Your task to perform on an android device: visit the assistant section in the google photos Image 0: 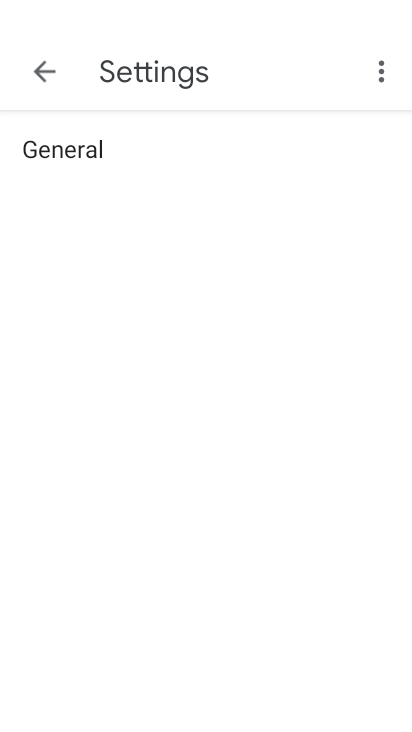
Step 0: press home button
Your task to perform on an android device: visit the assistant section in the google photos Image 1: 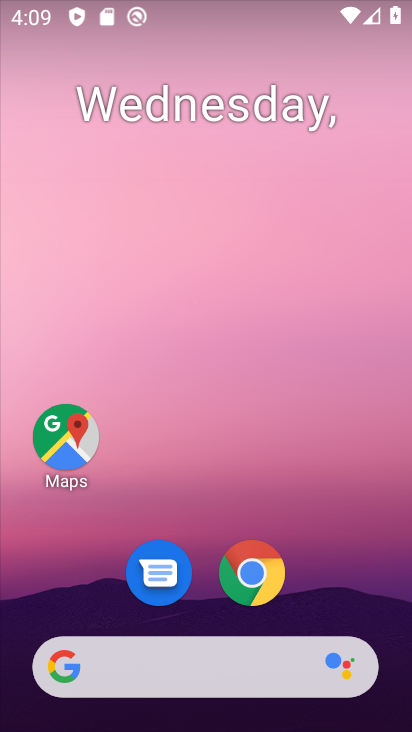
Step 1: drag from (201, 604) to (203, 0)
Your task to perform on an android device: visit the assistant section in the google photos Image 2: 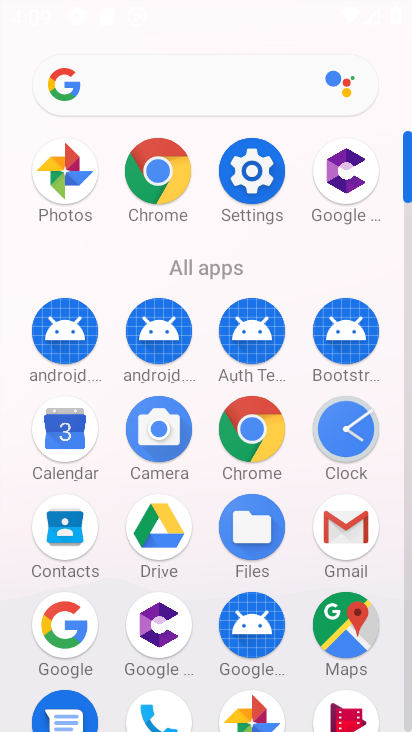
Step 2: drag from (197, 632) to (183, 385)
Your task to perform on an android device: visit the assistant section in the google photos Image 3: 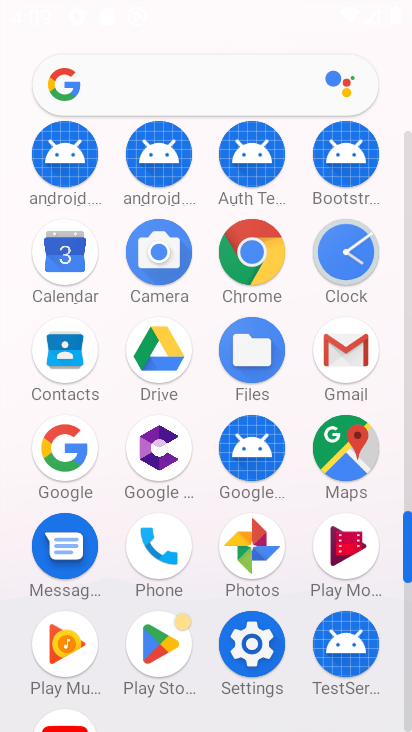
Step 3: click (255, 543)
Your task to perform on an android device: visit the assistant section in the google photos Image 4: 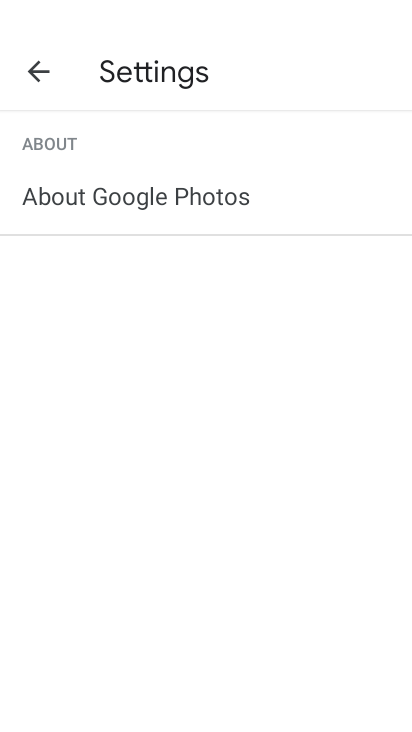
Step 4: click (45, 71)
Your task to perform on an android device: visit the assistant section in the google photos Image 5: 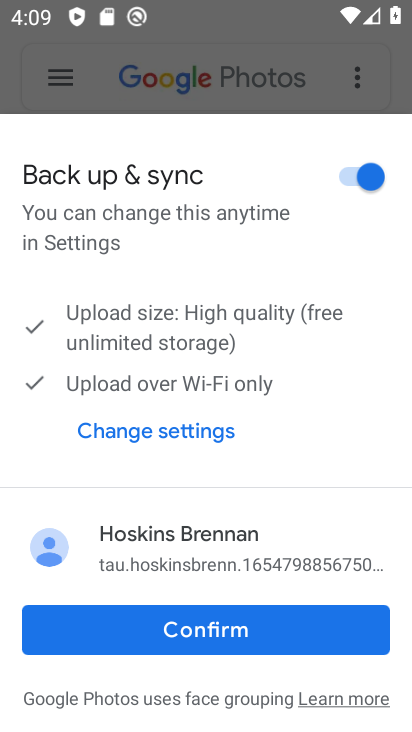
Step 5: click (231, 628)
Your task to perform on an android device: visit the assistant section in the google photos Image 6: 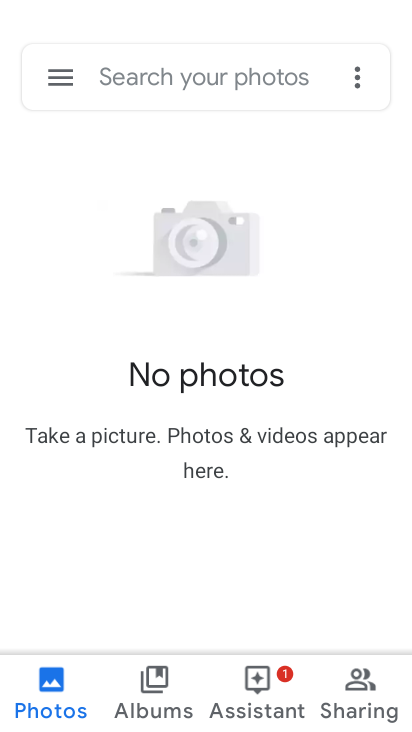
Step 6: click (276, 705)
Your task to perform on an android device: visit the assistant section in the google photos Image 7: 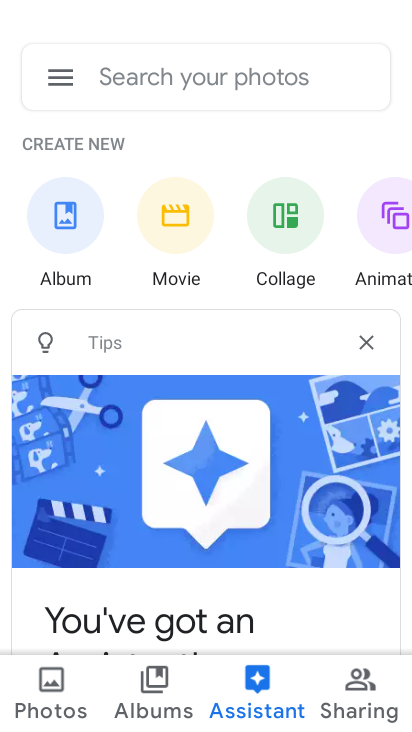
Step 7: task complete